Your task to perform on an android device: Add bose soundsport free to the cart on newegg.com, then select checkout. Image 0: 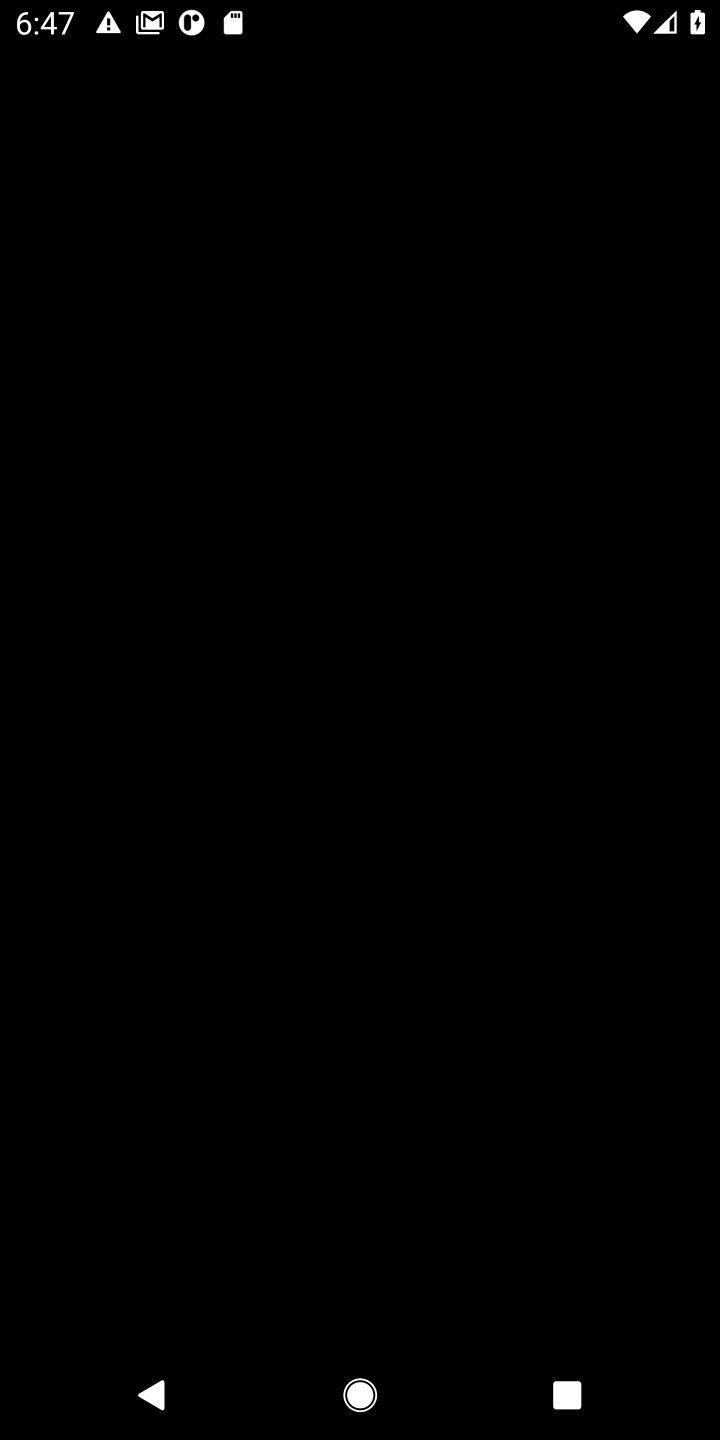
Step 0: press home button
Your task to perform on an android device: Add bose soundsport free to the cart on newegg.com, then select checkout. Image 1: 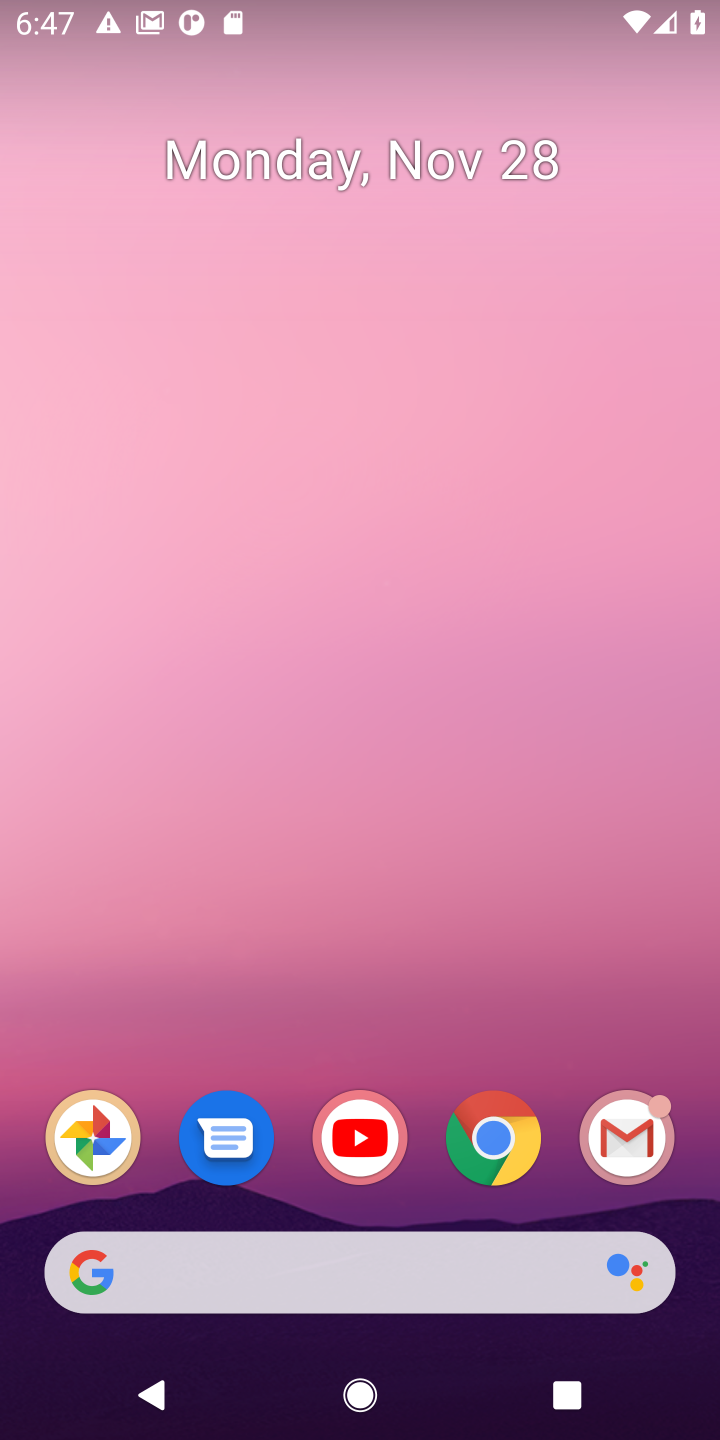
Step 1: click (476, 1142)
Your task to perform on an android device: Add bose soundsport free to the cart on newegg.com, then select checkout. Image 2: 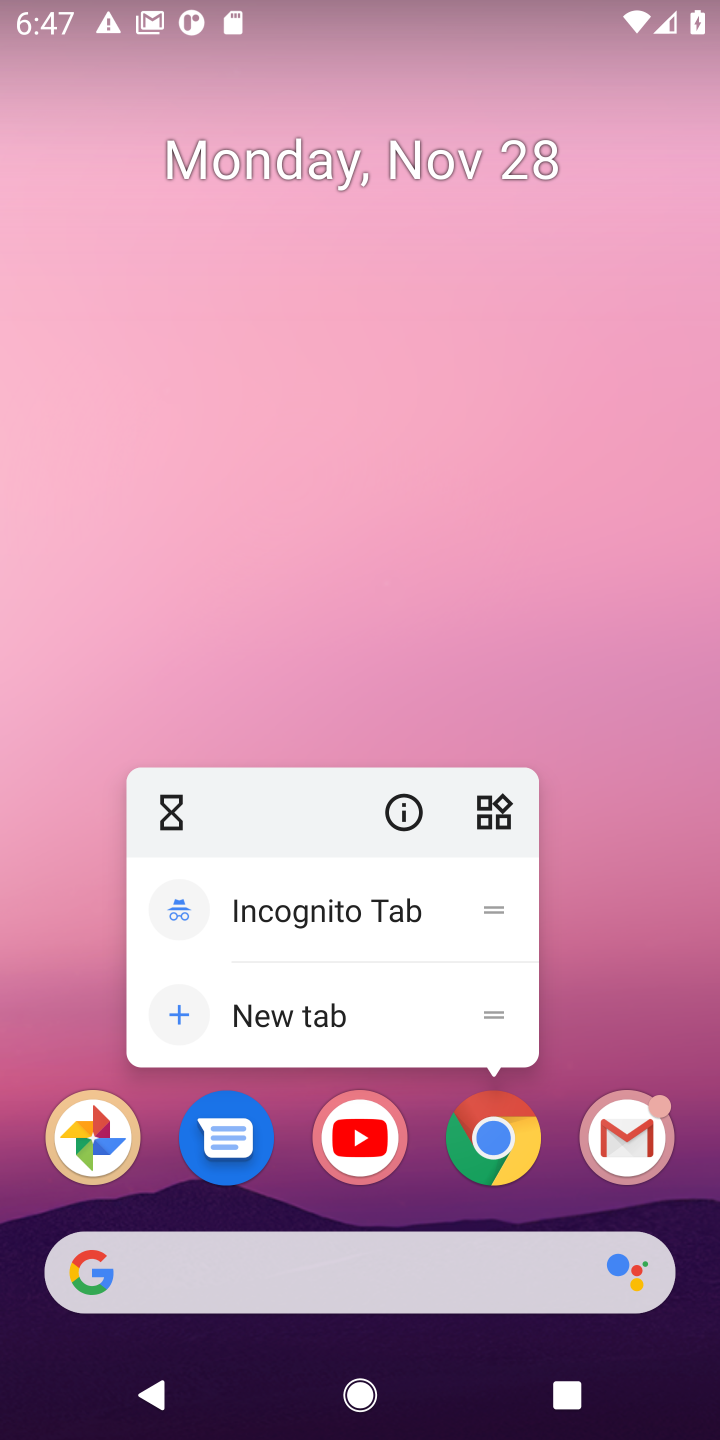
Step 2: click (495, 1158)
Your task to perform on an android device: Add bose soundsport free to the cart on newegg.com, then select checkout. Image 3: 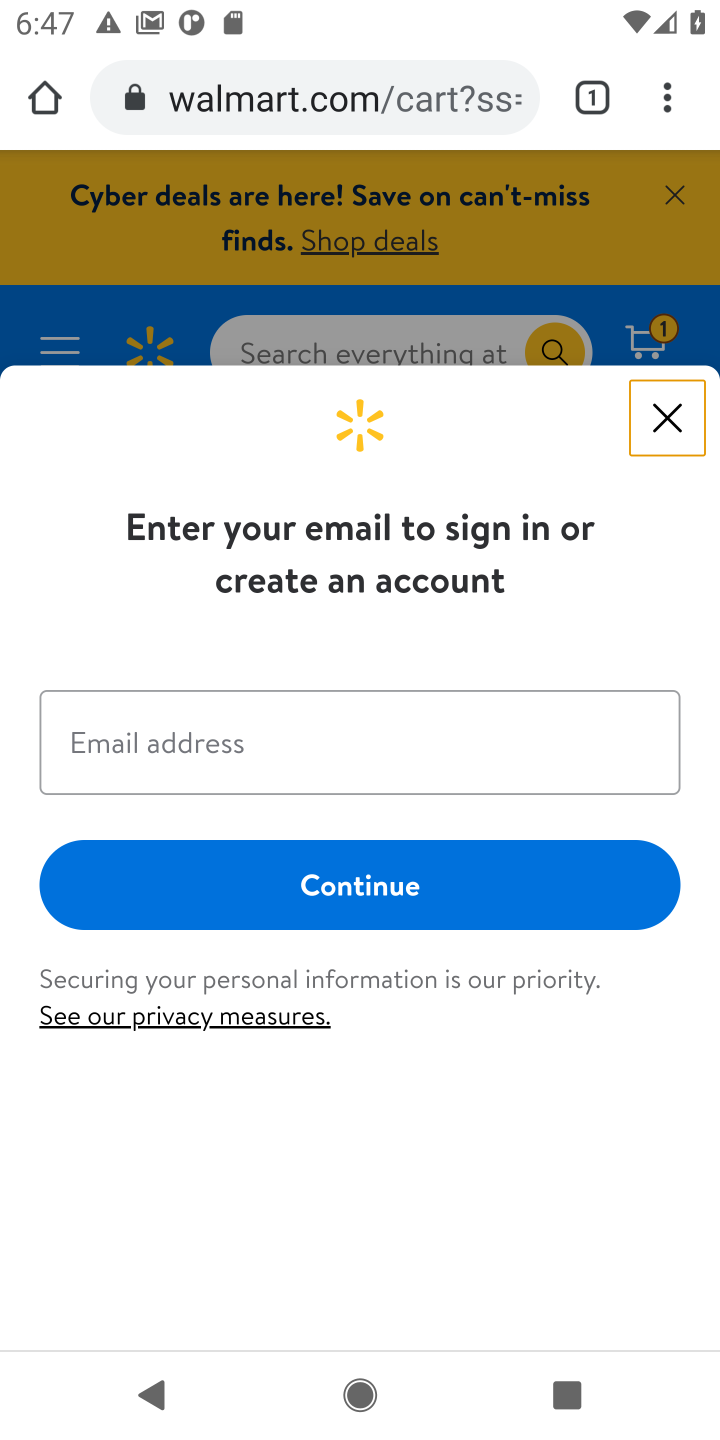
Step 3: click (278, 89)
Your task to perform on an android device: Add bose soundsport free to the cart on newegg.com, then select checkout. Image 4: 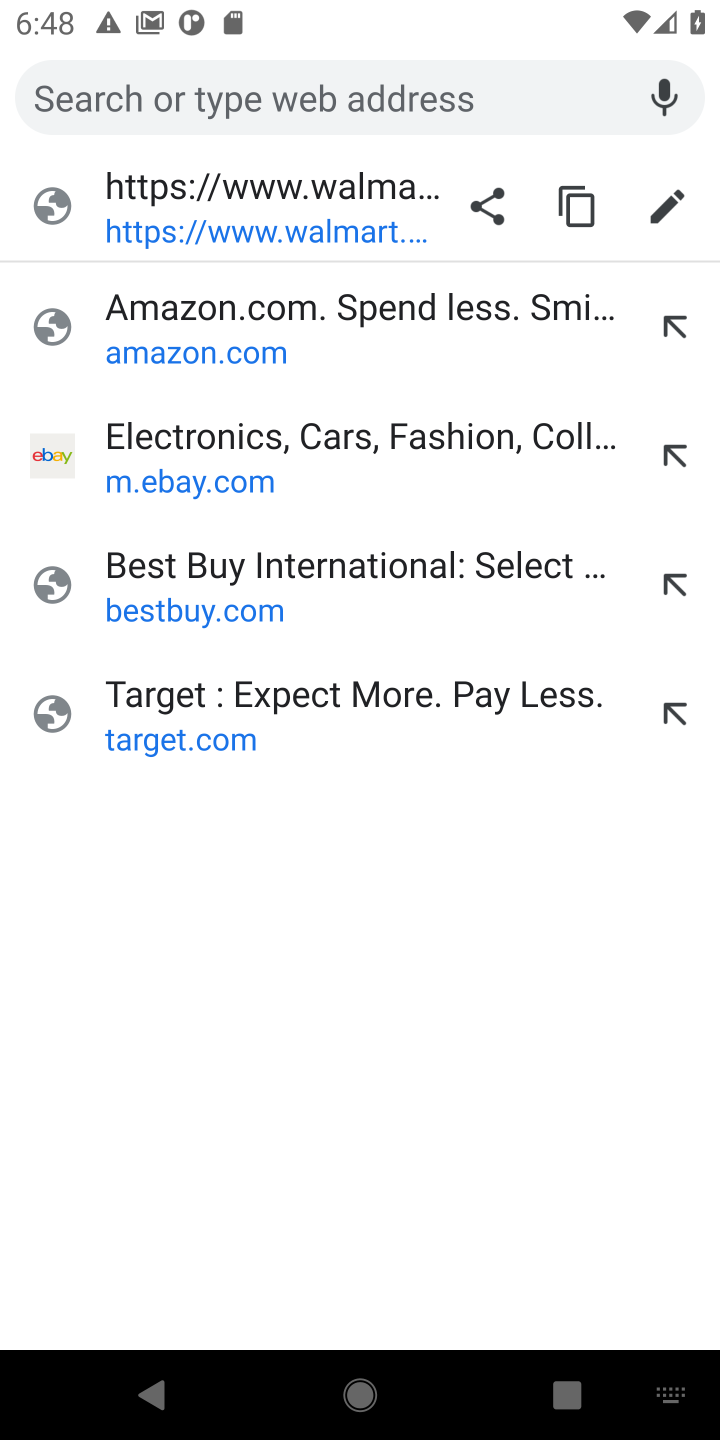
Step 4: type "newegg.com"
Your task to perform on an android device: Add bose soundsport free to the cart on newegg.com, then select checkout. Image 5: 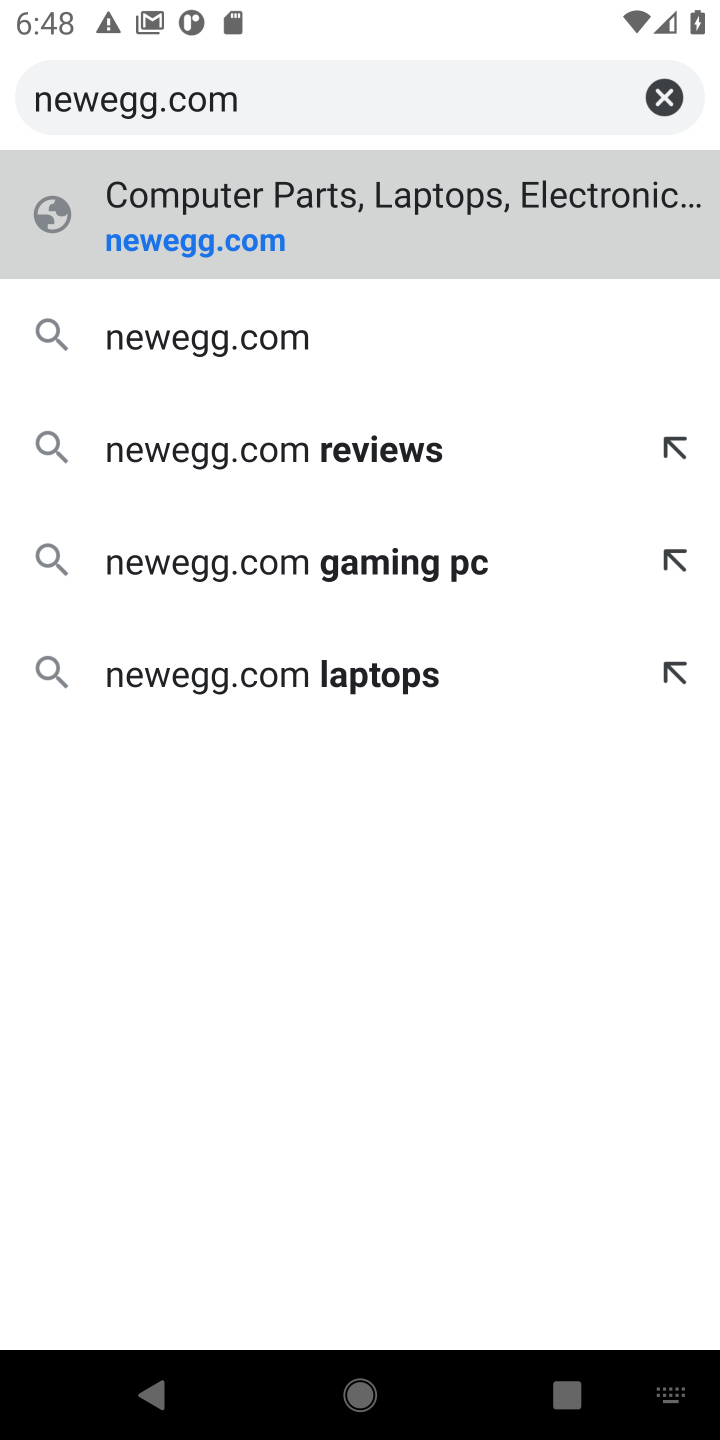
Step 5: click (183, 221)
Your task to perform on an android device: Add bose soundsport free to the cart on newegg.com, then select checkout. Image 6: 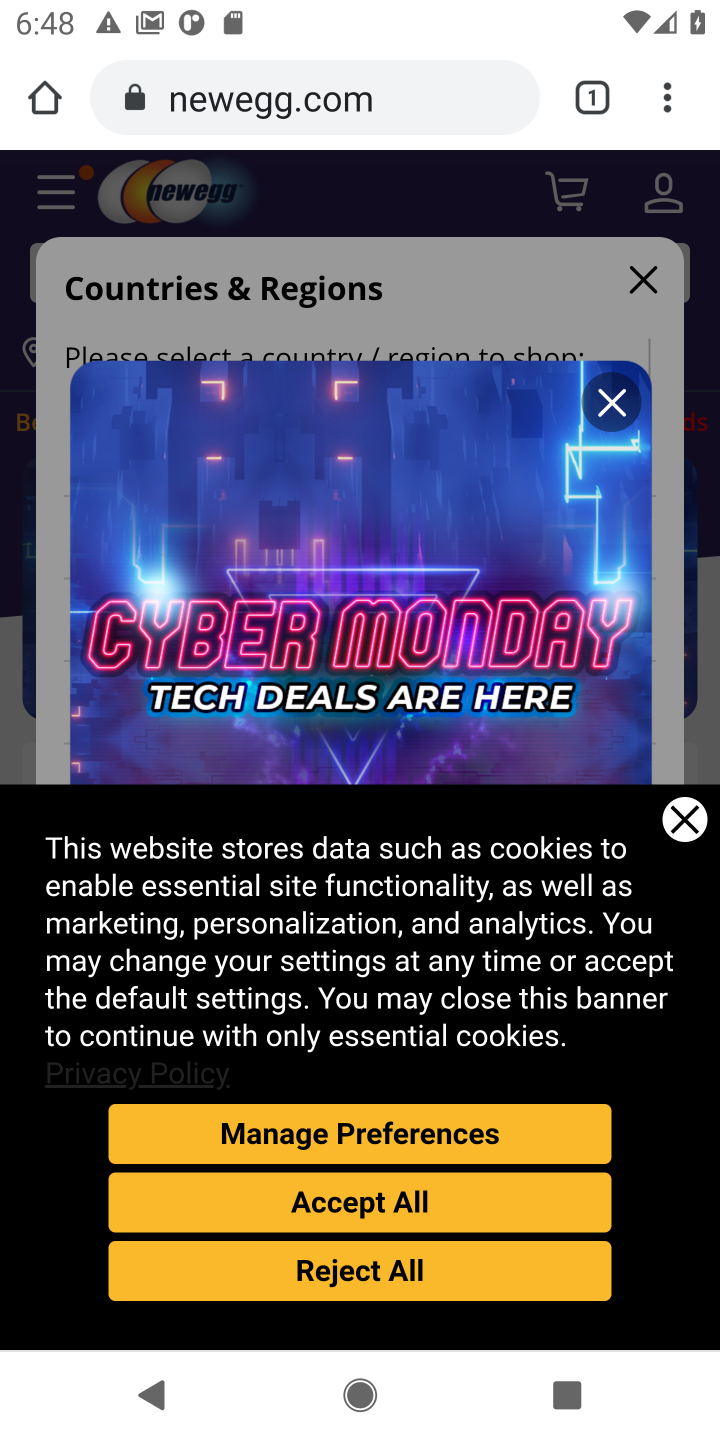
Step 6: click (687, 822)
Your task to perform on an android device: Add bose soundsport free to the cart on newegg.com, then select checkout. Image 7: 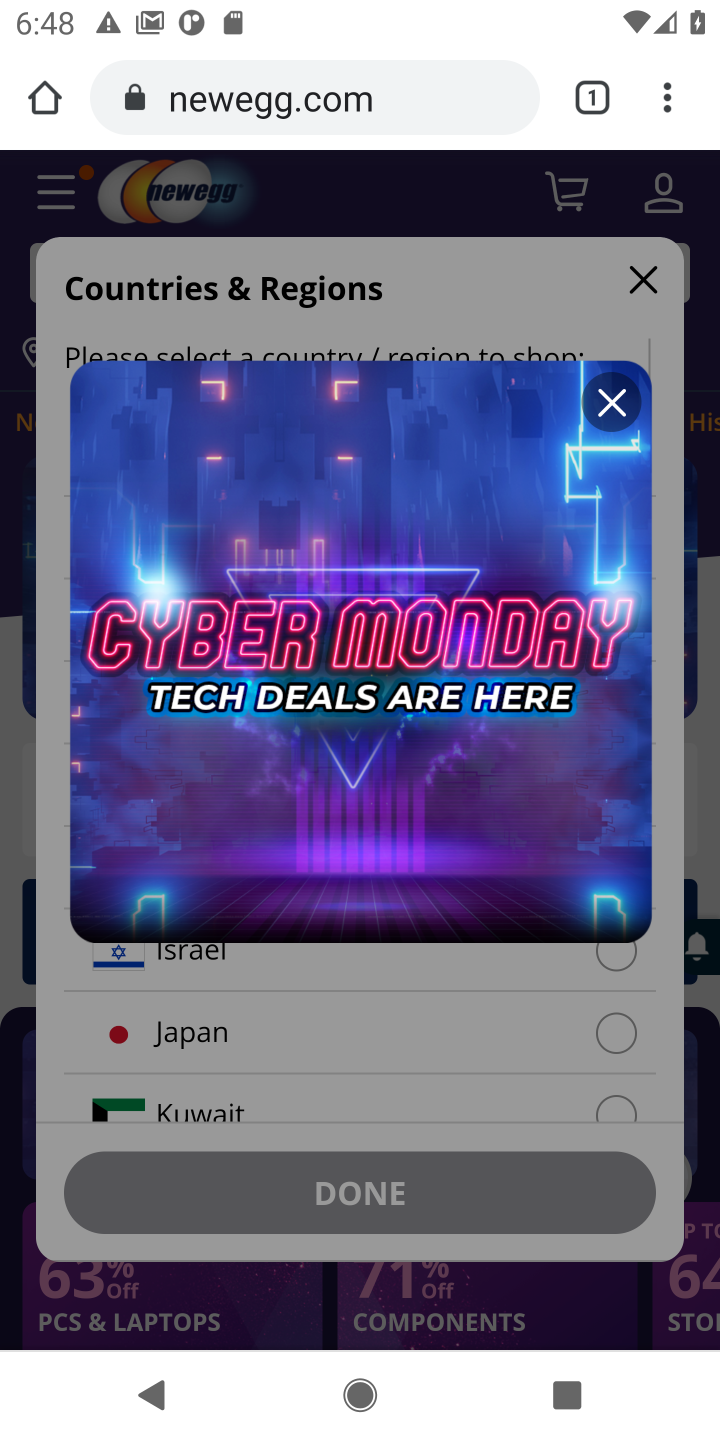
Step 7: click (620, 400)
Your task to perform on an android device: Add bose soundsport free to the cart on newegg.com, then select checkout. Image 8: 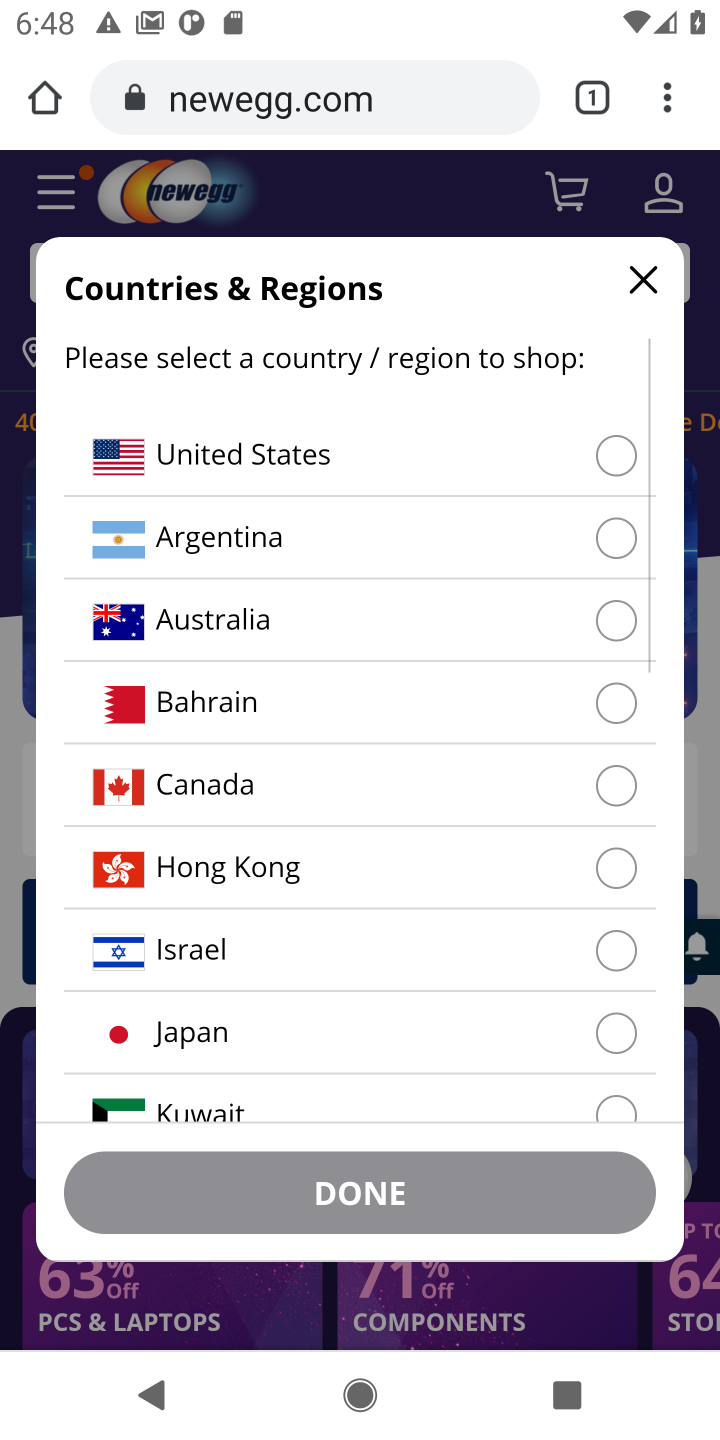
Step 8: click (326, 451)
Your task to perform on an android device: Add bose soundsport free to the cart on newegg.com, then select checkout. Image 9: 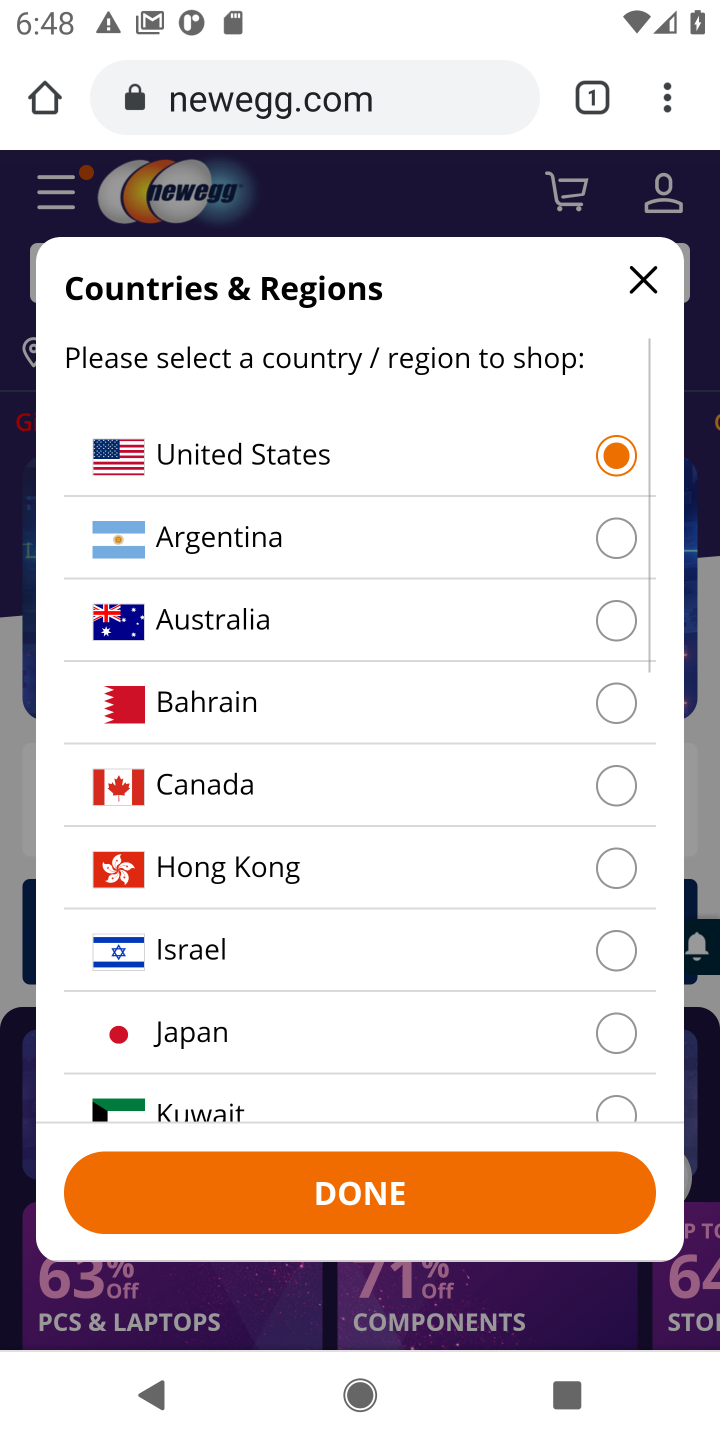
Step 9: click (334, 1199)
Your task to perform on an android device: Add bose soundsport free to the cart on newegg.com, then select checkout. Image 10: 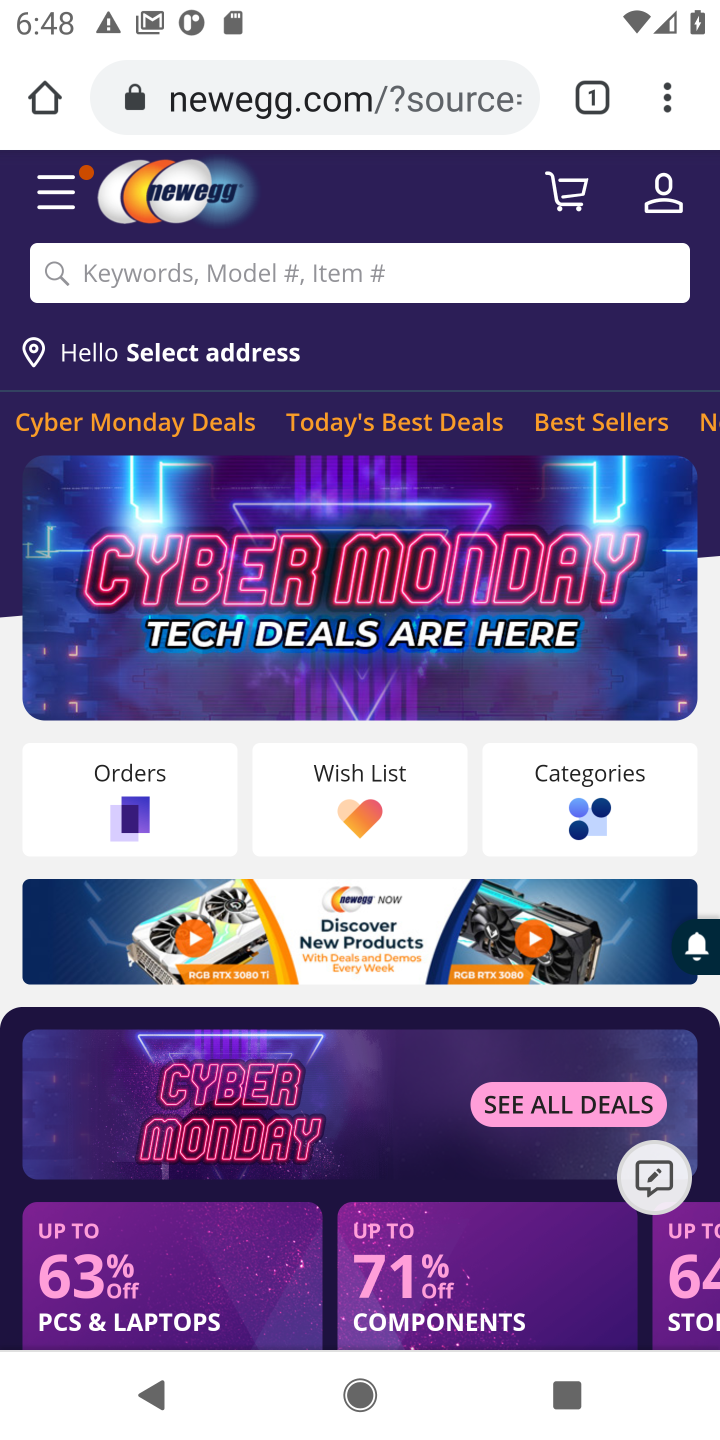
Step 10: click (240, 269)
Your task to perform on an android device: Add bose soundsport free to the cart on newegg.com, then select checkout. Image 11: 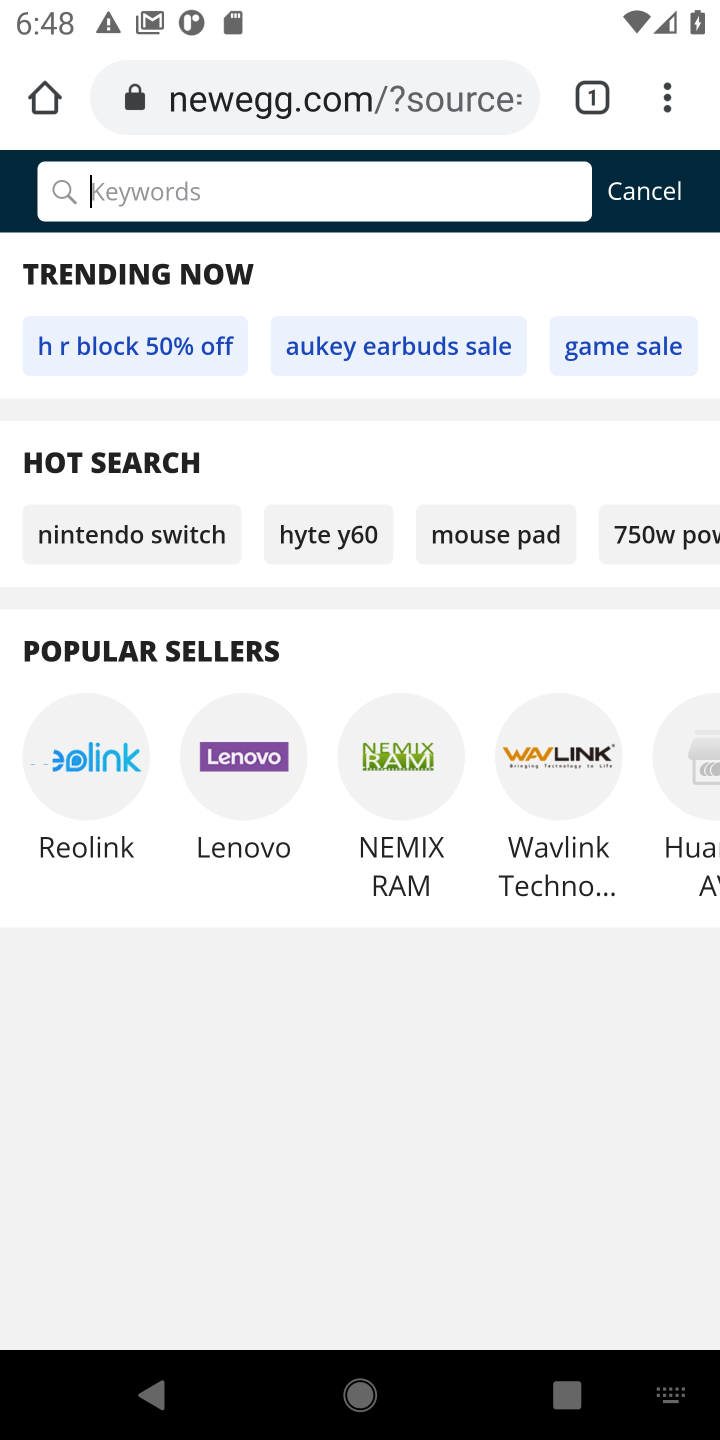
Step 11: type "bose soundsport free"
Your task to perform on an android device: Add bose soundsport free to the cart on newegg.com, then select checkout. Image 12: 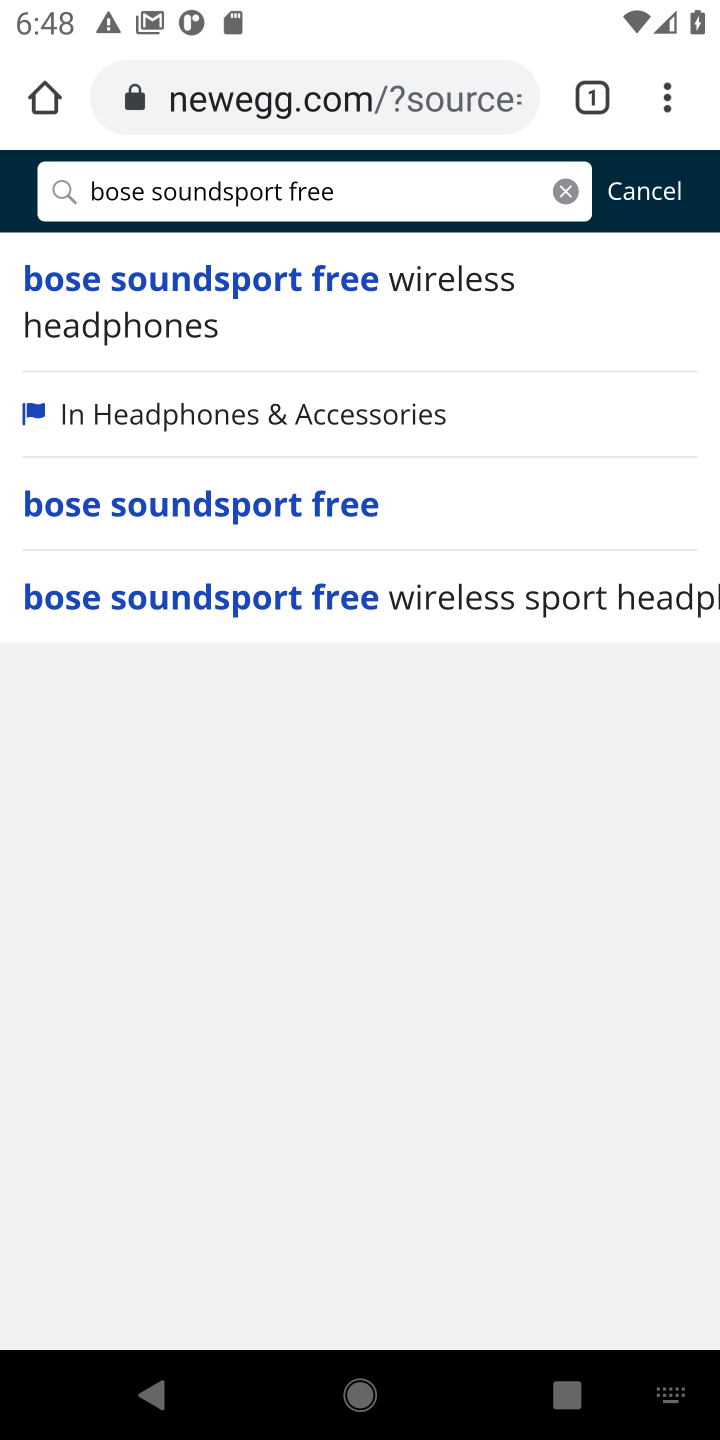
Step 12: click (143, 518)
Your task to perform on an android device: Add bose soundsport free to the cart on newegg.com, then select checkout. Image 13: 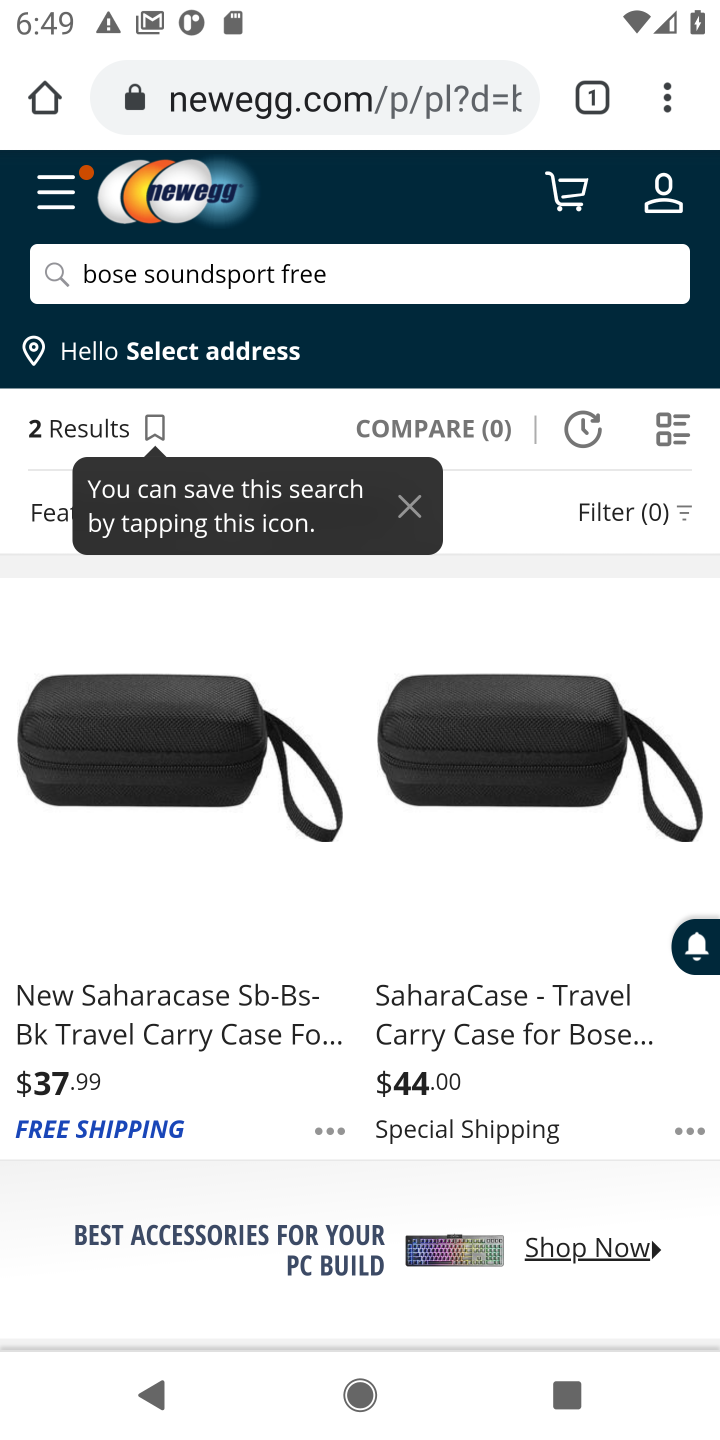
Step 13: click (524, 882)
Your task to perform on an android device: Add bose soundsport free to the cart on newegg.com, then select checkout. Image 14: 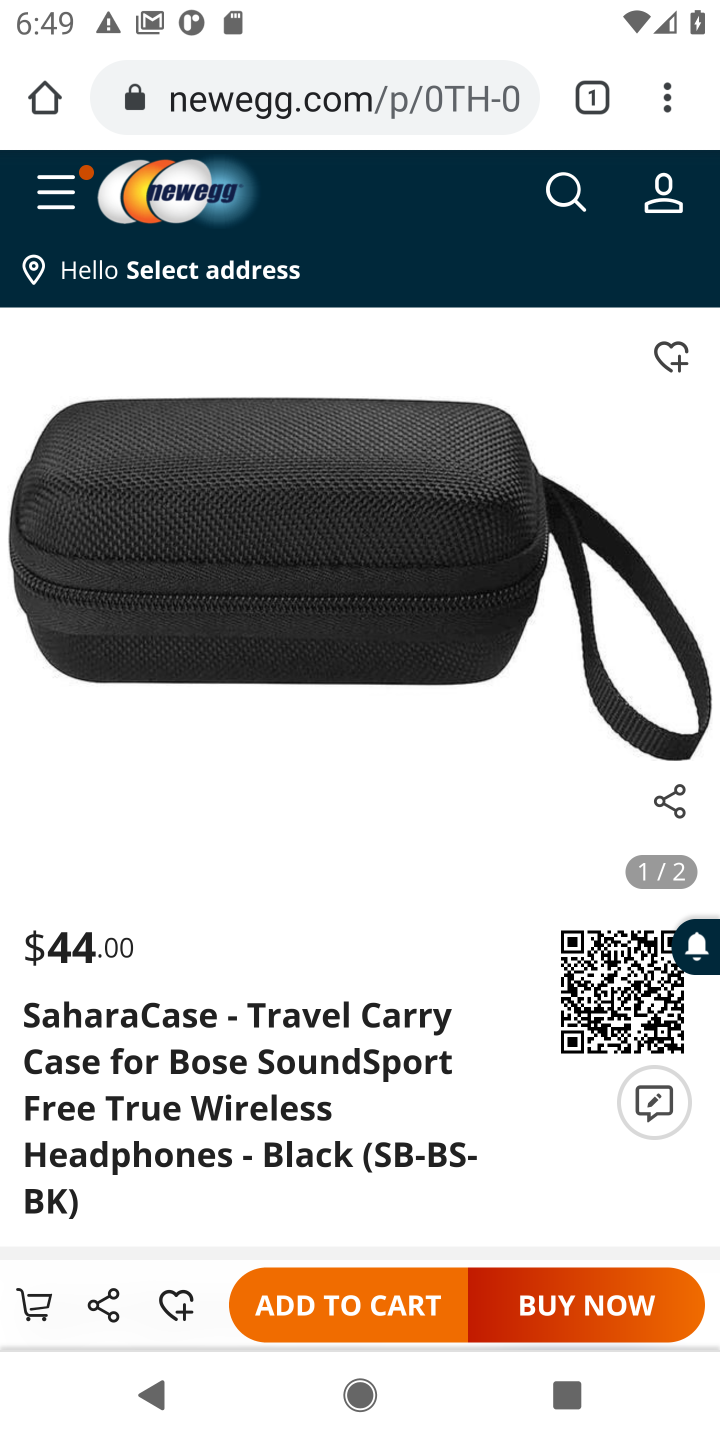
Step 14: click (337, 1323)
Your task to perform on an android device: Add bose soundsport free to the cart on newegg.com, then select checkout. Image 15: 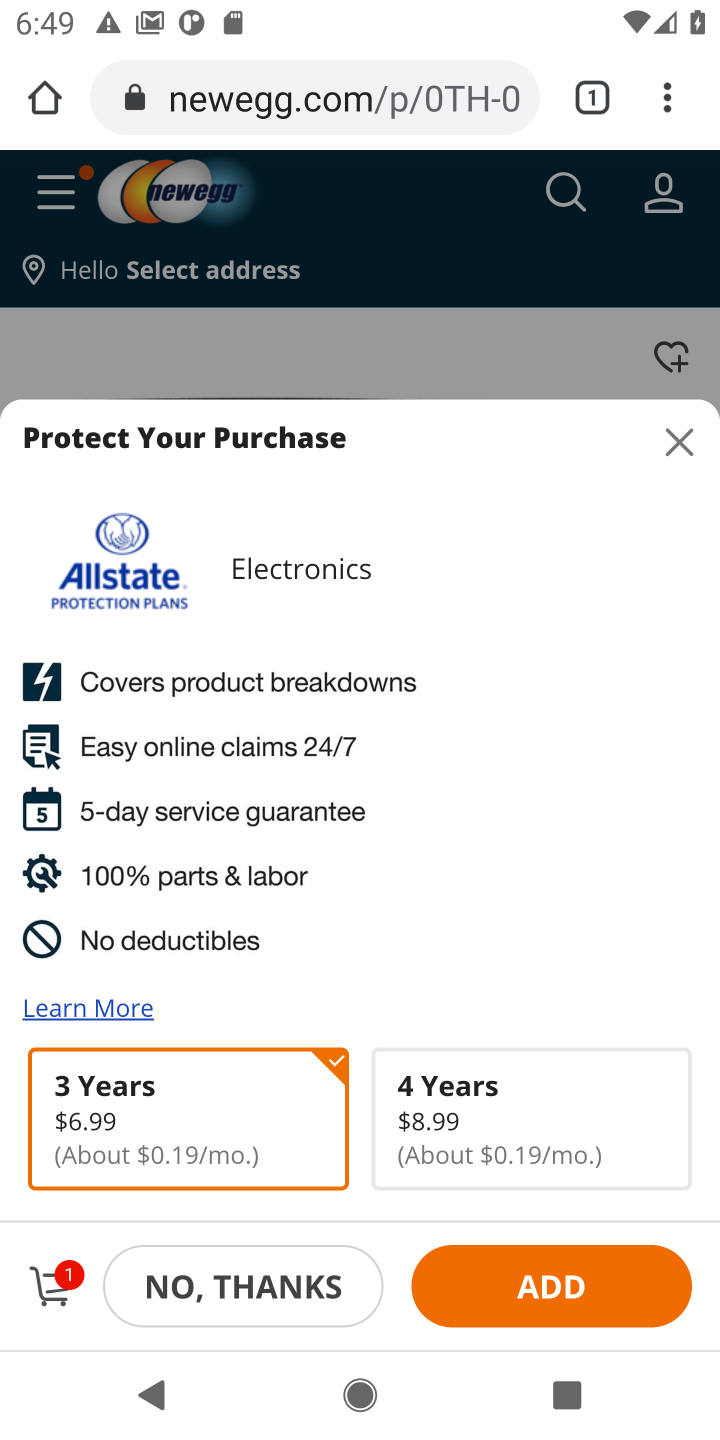
Step 15: click (70, 1265)
Your task to perform on an android device: Add bose soundsport free to the cart on newegg.com, then select checkout. Image 16: 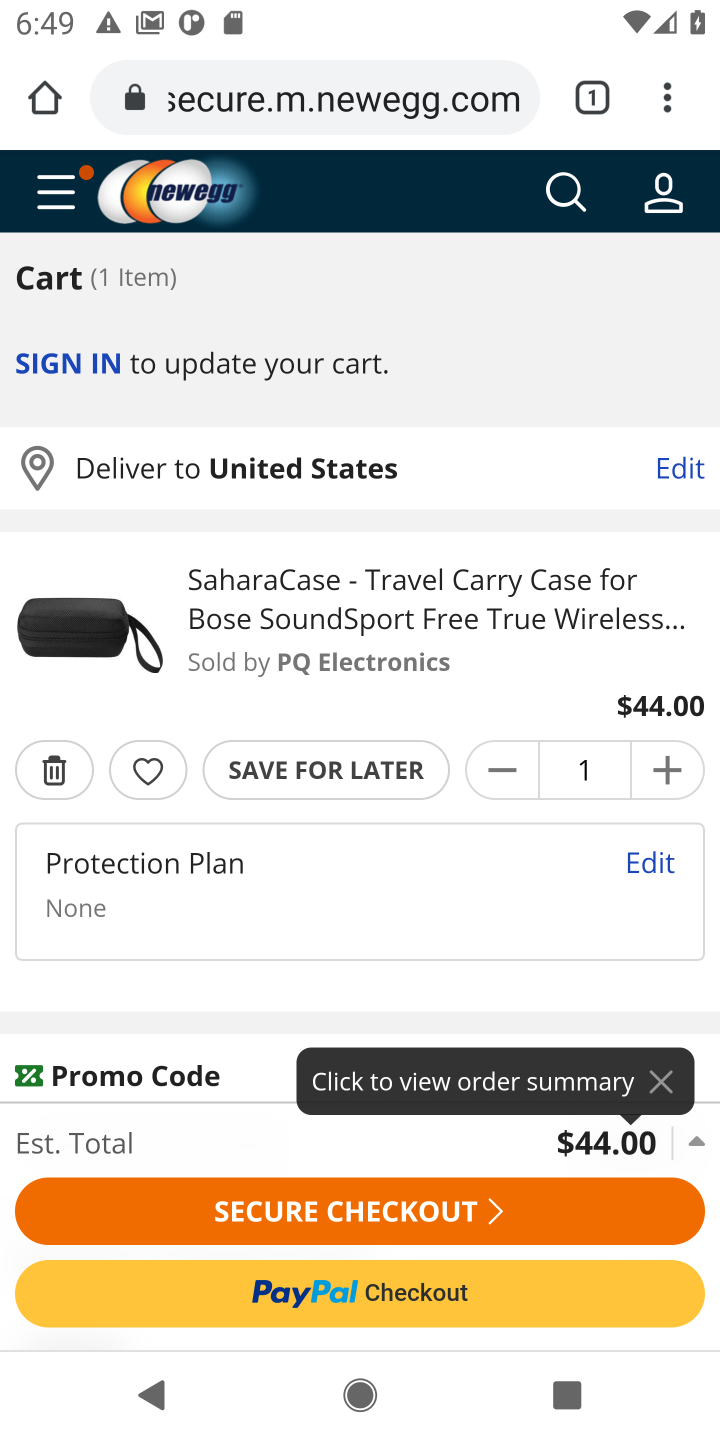
Step 16: click (313, 1209)
Your task to perform on an android device: Add bose soundsport free to the cart on newegg.com, then select checkout. Image 17: 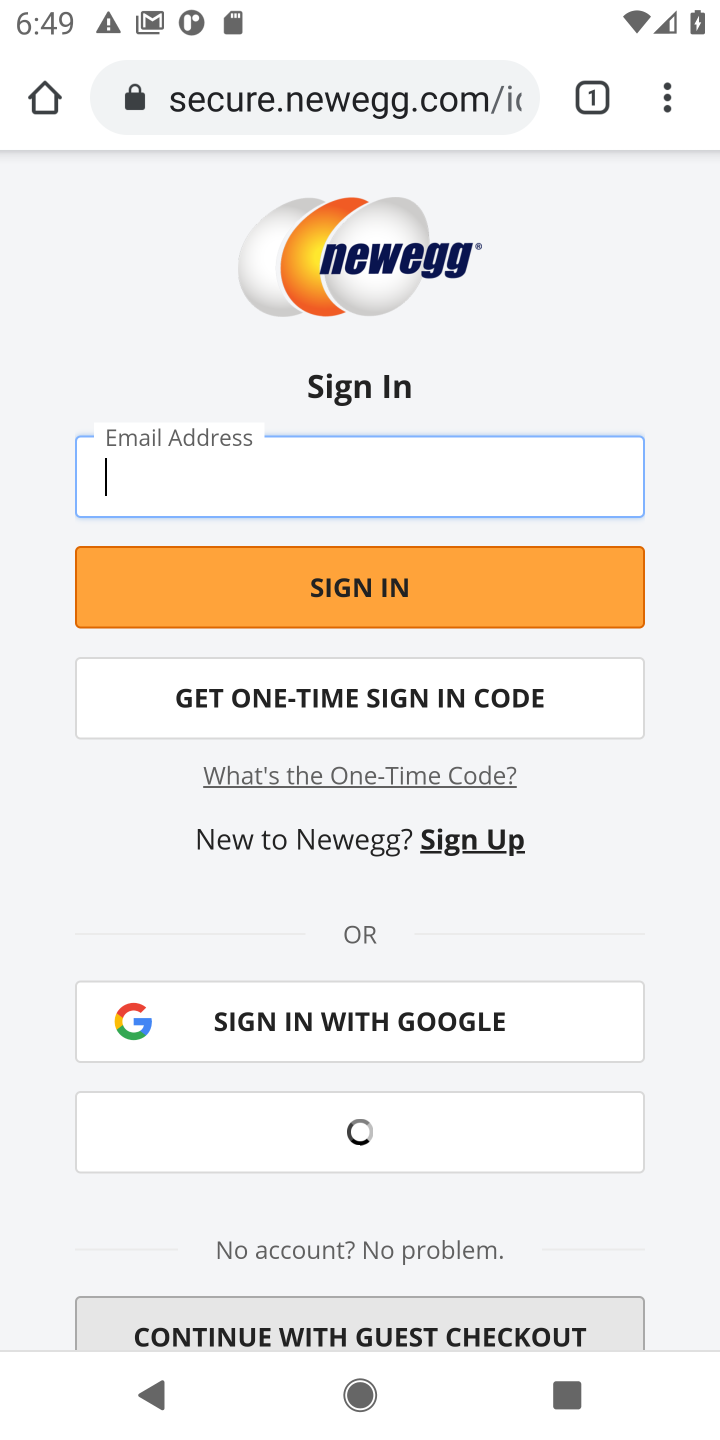
Step 17: task complete